Your task to perform on an android device: Open Wikipedia Image 0: 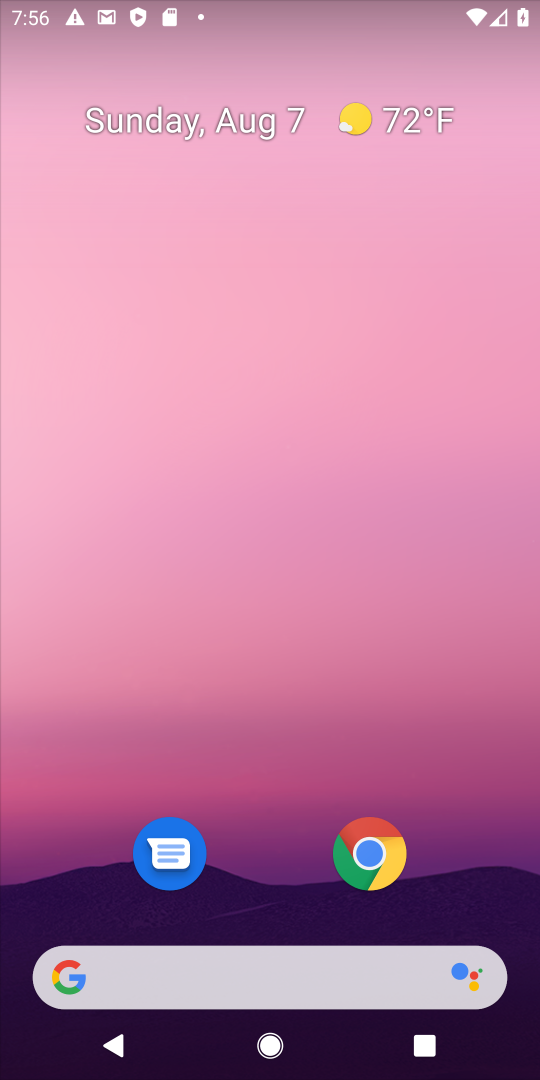
Step 0: click (301, 272)
Your task to perform on an android device: Open Wikipedia Image 1: 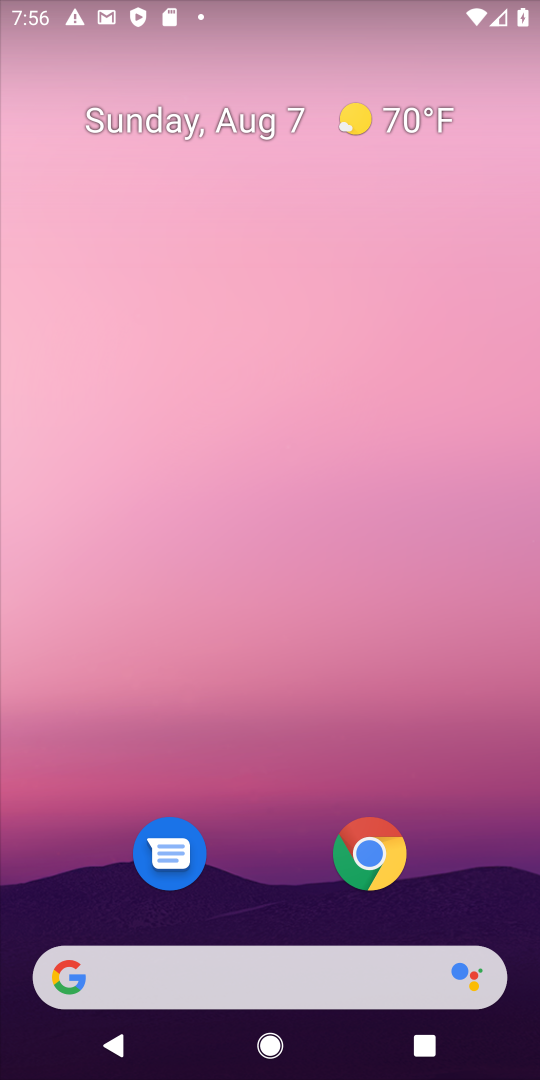
Step 1: drag from (392, 534) to (449, 60)
Your task to perform on an android device: Open Wikipedia Image 2: 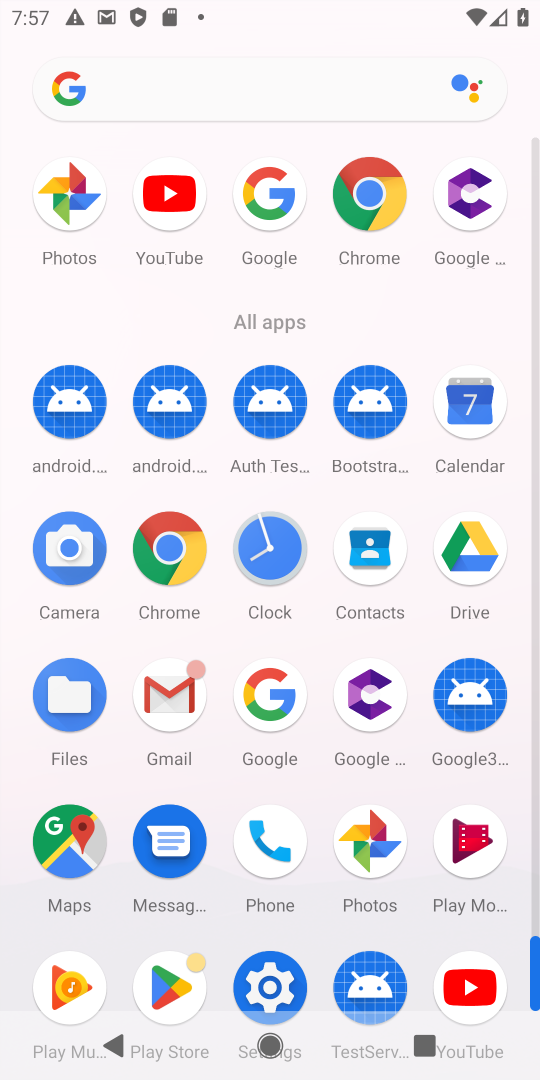
Step 2: click (379, 203)
Your task to perform on an android device: Open Wikipedia Image 3: 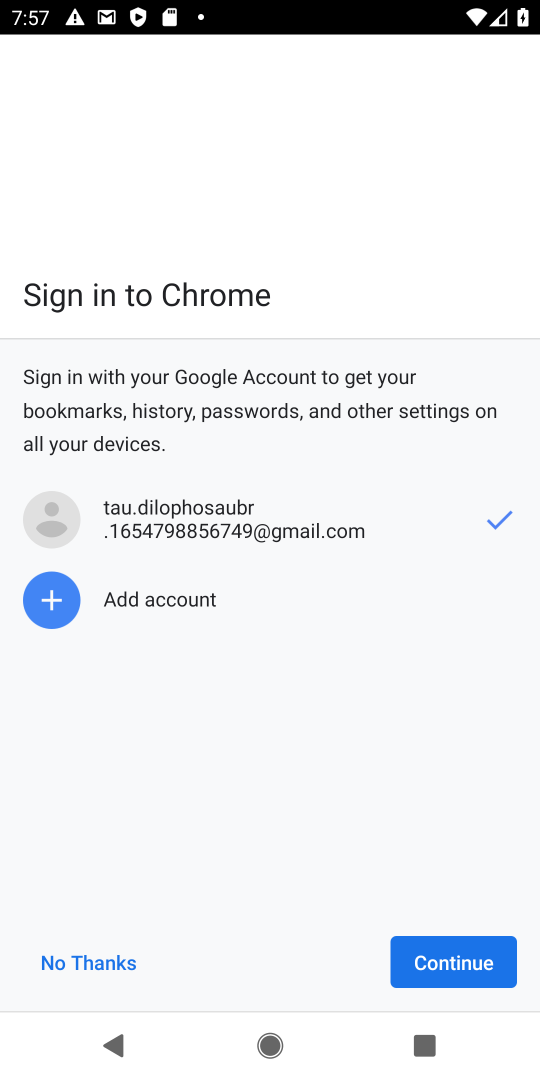
Step 3: click (457, 978)
Your task to perform on an android device: Open Wikipedia Image 4: 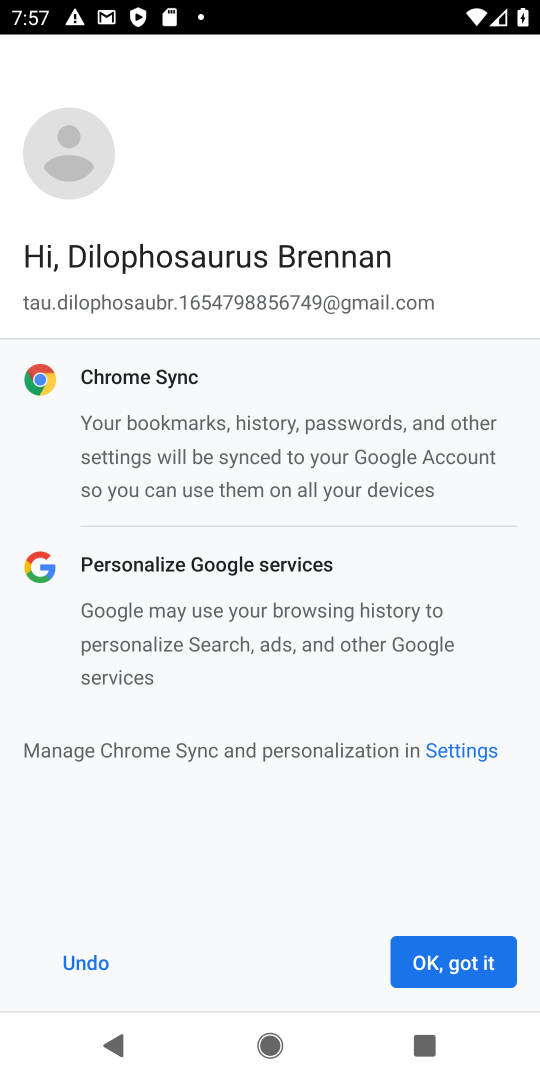
Step 4: click (461, 970)
Your task to perform on an android device: Open Wikipedia Image 5: 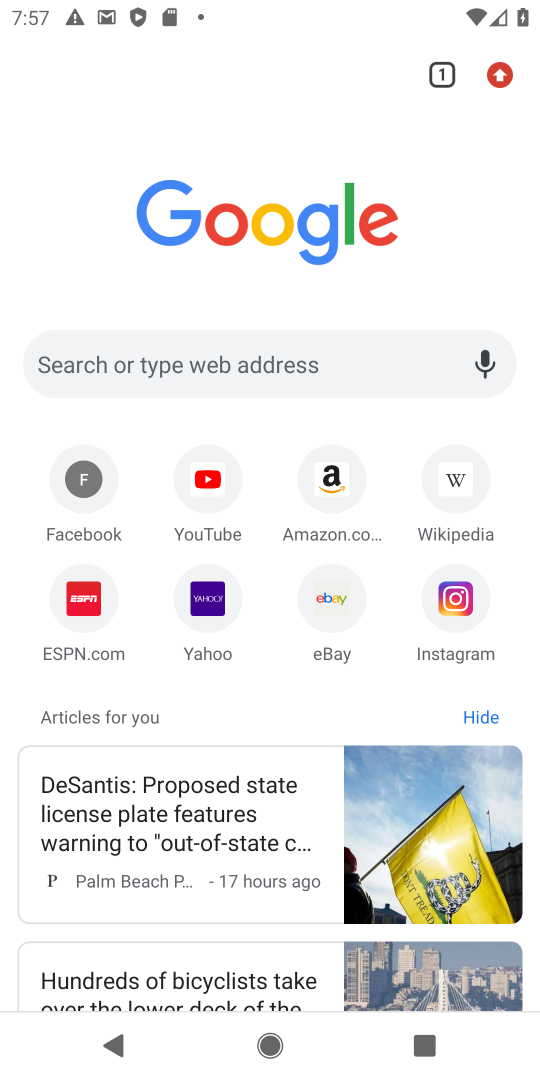
Step 5: click (466, 499)
Your task to perform on an android device: Open Wikipedia Image 6: 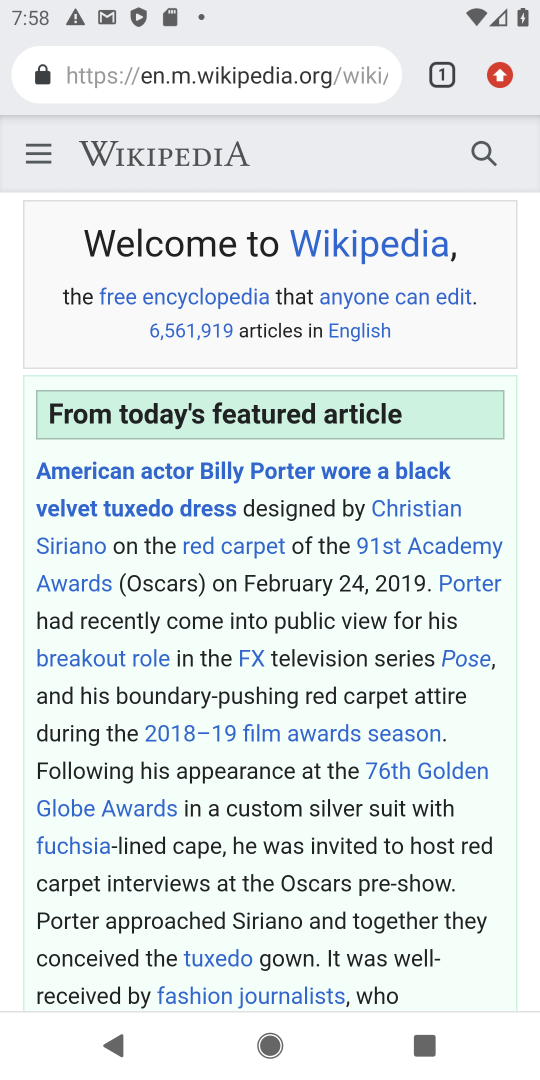
Step 6: task complete